Your task to perform on an android device: turn off notifications settings in the gmail app Image 0: 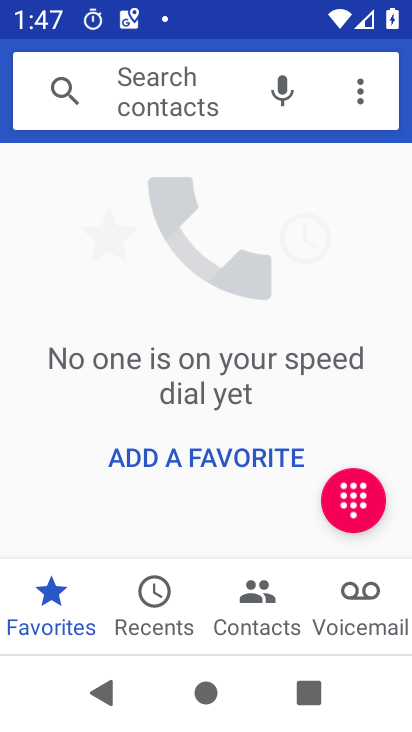
Step 0: press home button
Your task to perform on an android device: turn off notifications settings in the gmail app Image 1: 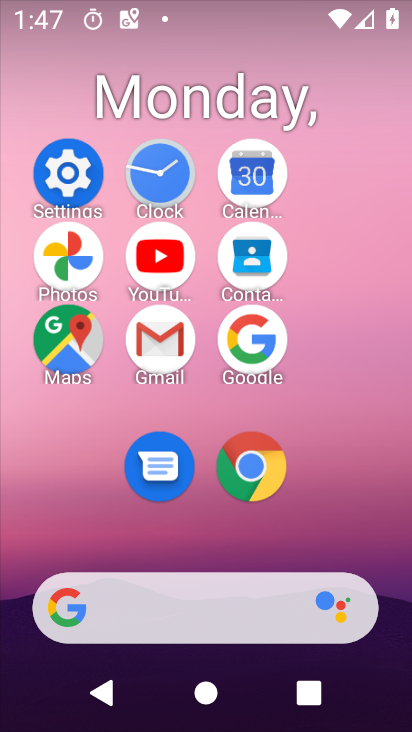
Step 1: click (145, 357)
Your task to perform on an android device: turn off notifications settings in the gmail app Image 2: 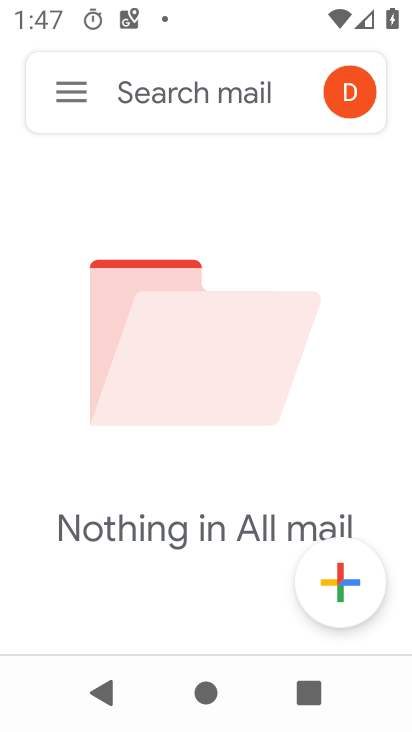
Step 2: click (72, 101)
Your task to perform on an android device: turn off notifications settings in the gmail app Image 3: 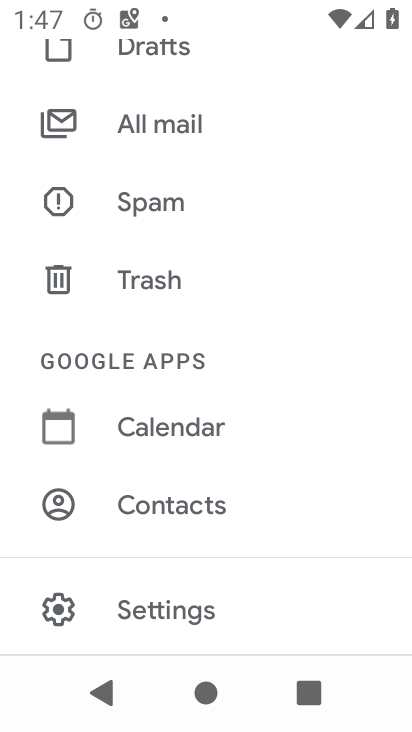
Step 3: click (196, 598)
Your task to perform on an android device: turn off notifications settings in the gmail app Image 4: 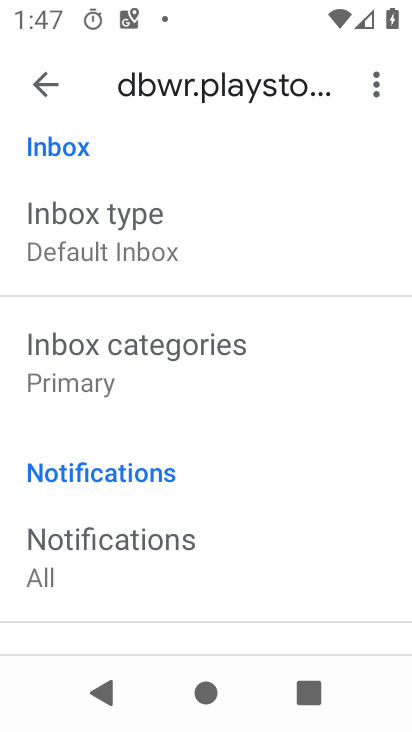
Step 4: click (195, 543)
Your task to perform on an android device: turn off notifications settings in the gmail app Image 5: 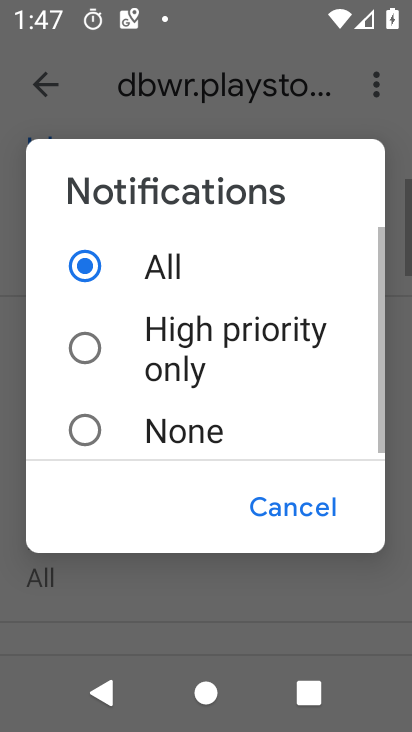
Step 5: click (159, 438)
Your task to perform on an android device: turn off notifications settings in the gmail app Image 6: 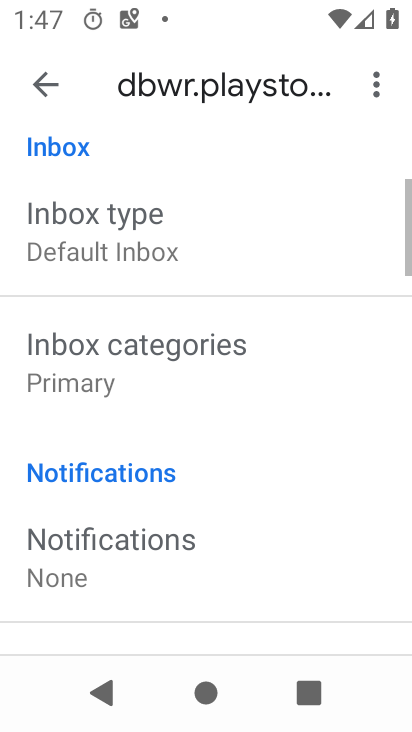
Step 6: task complete